Your task to perform on an android device: Open location settings Image 0: 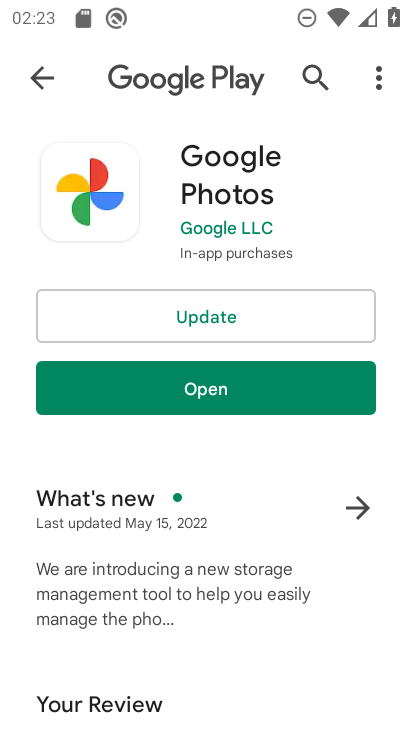
Step 0: press home button
Your task to perform on an android device: Open location settings Image 1: 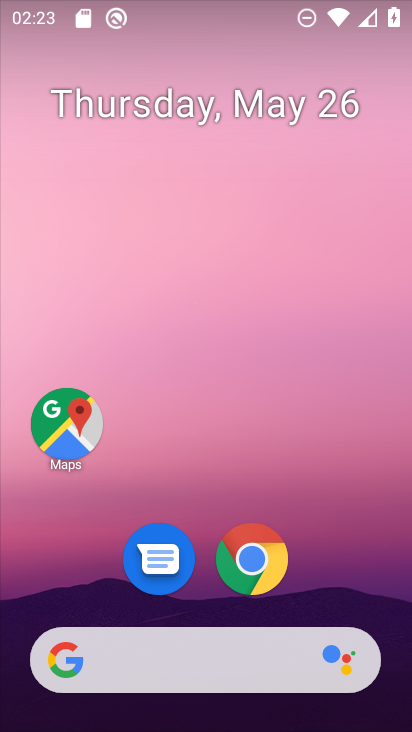
Step 1: drag from (233, 655) to (381, 139)
Your task to perform on an android device: Open location settings Image 2: 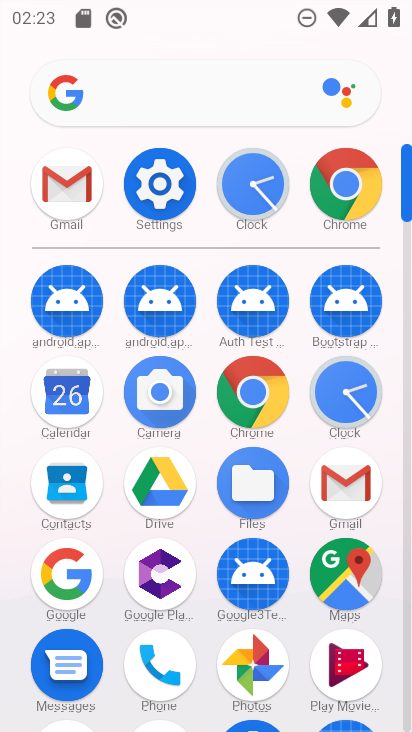
Step 2: click (167, 191)
Your task to perform on an android device: Open location settings Image 3: 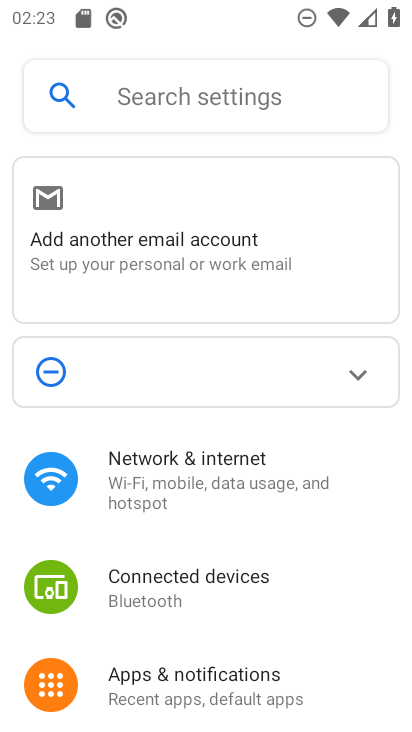
Step 3: drag from (249, 549) to (300, 396)
Your task to perform on an android device: Open location settings Image 4: 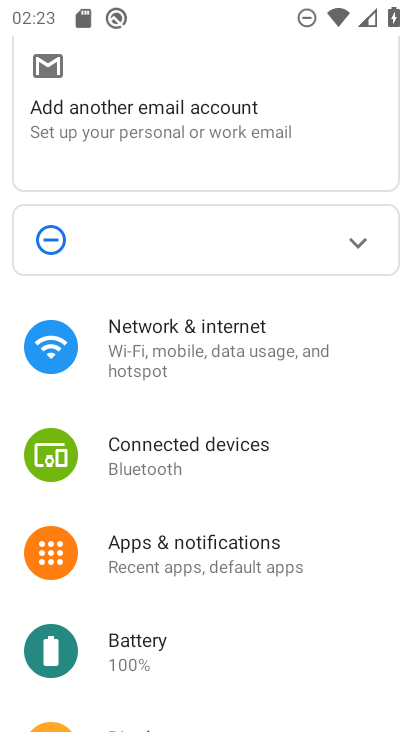
Step 4: drag from (292, 566) to (407, 271)
Your task to perform on an android device: Open location settings Image 5: 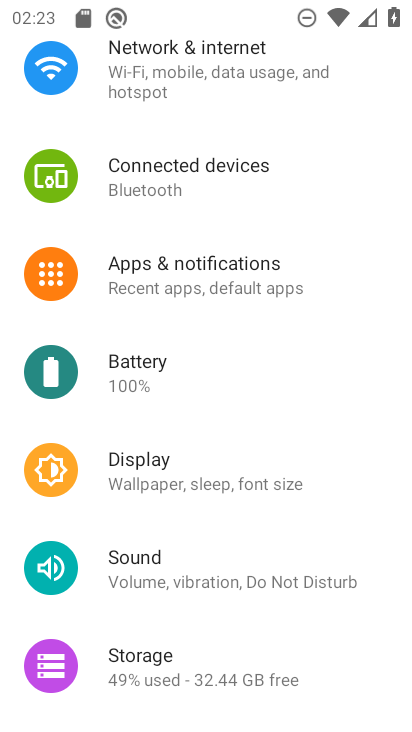
Step 5: drag from (291, 581) to (357, 206)
Your task to perform on an android device: Open location settings Image 6: 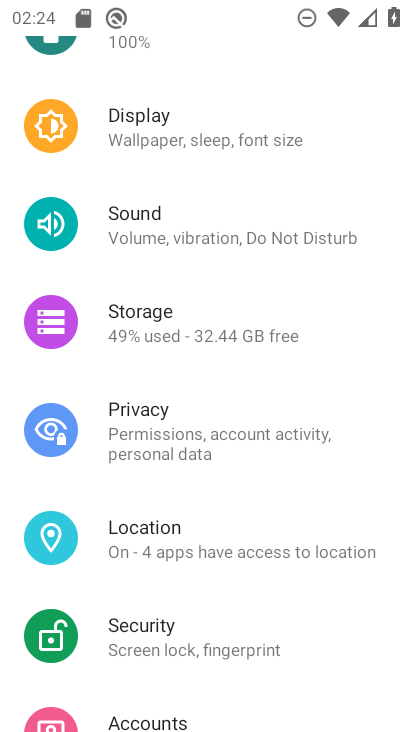
Step 6: drag from (326, 638) to (401, 144)
Your task to perform on an android device: Open location settings Image 7: 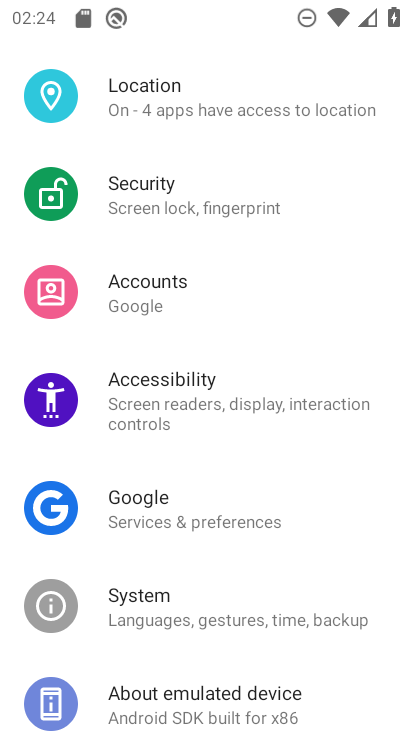
Step 7: click (220, 103)
Your task to perform on an android device: Open location settings Image 8: 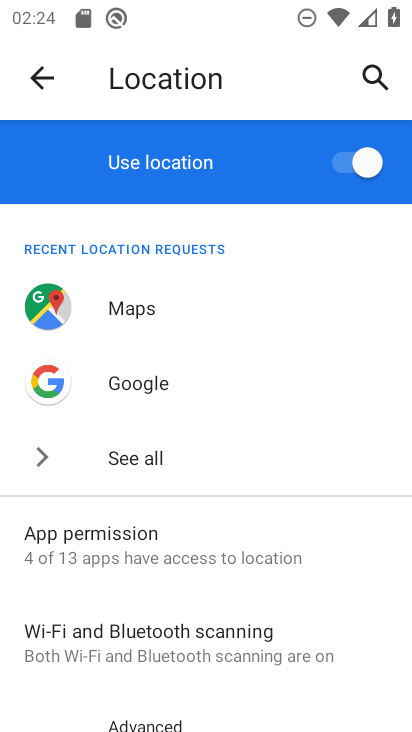
Step 8: task complete